Your task to perform on an android device: Open Google Chrome and open the bookmarks view Image 0: 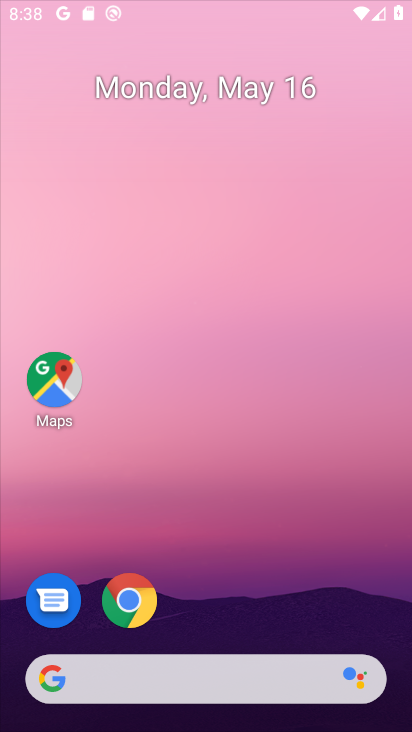
Step 0: click (124, 79)
Your task to perform on an android device: Open Google Chrome and open the bookmarks view Image 1: 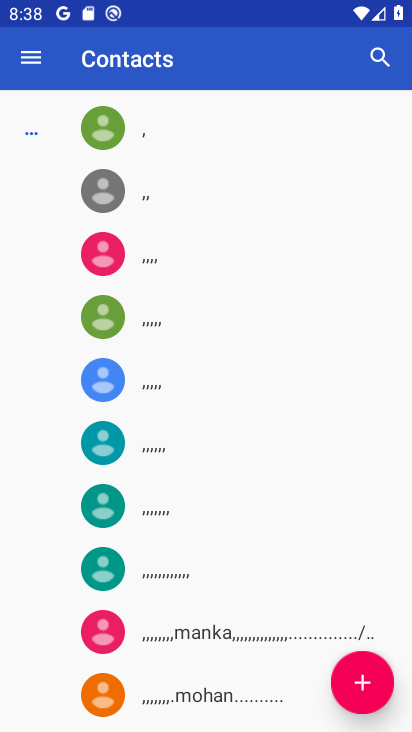
Step 1: press back button
Your task to perform on an android device: Open Google Chrome and open the bookmarks view Image 2: 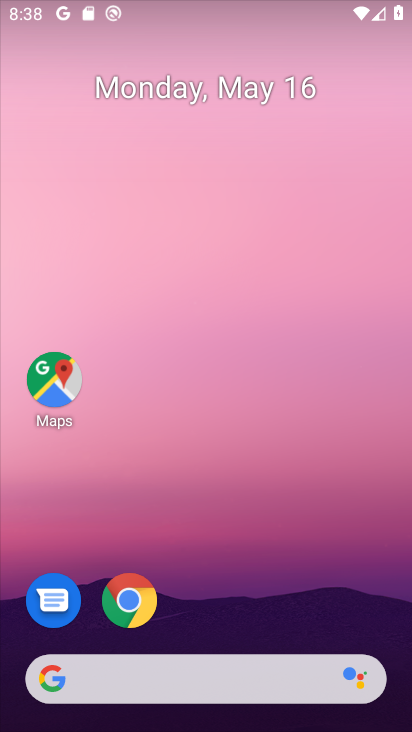
Step 2: drag from (284, 643) to (147, 150)
Your task to perform on an android device: Open Google Chrome and open the bookmarks view Image 3: 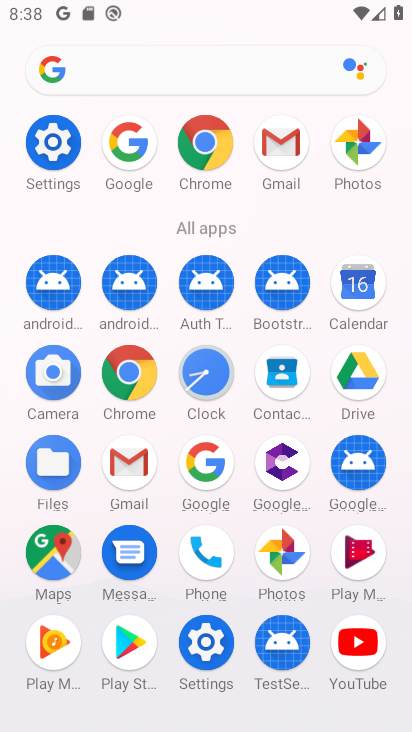
Step 3: click (211, 148)
Your task to perform on an android device: Open Google Chrome and open the bookmarks view Image 4: 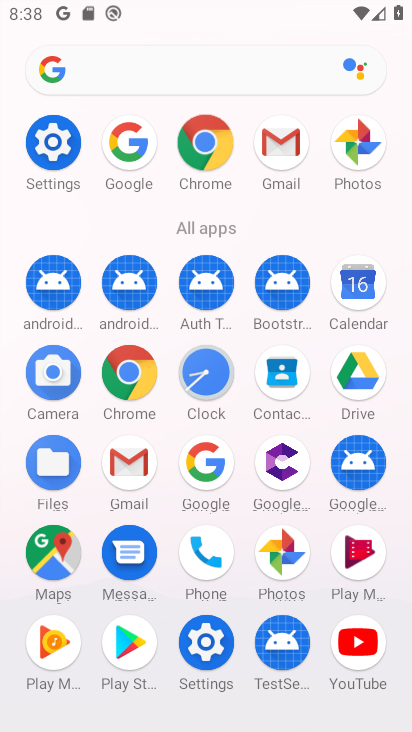
Step 4: click (211, 148)
Your task to perform on an android device: Open Google Chrome and open the bookmarks view Image 5: 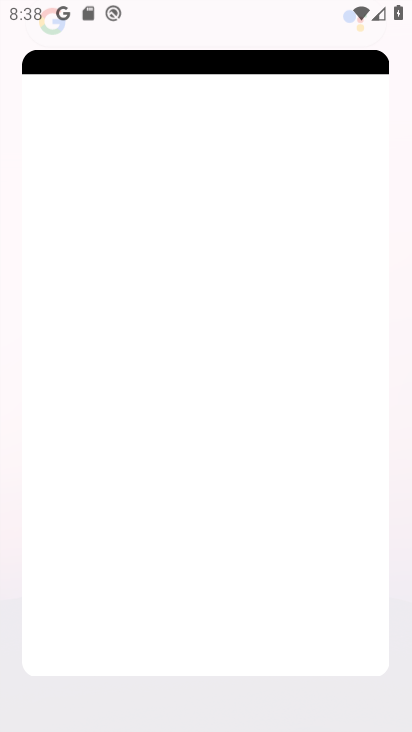
Step 5: click (211, 148)
Your task to perform on an android device: Open Google Chrome and open the bookmarks view Image 6: 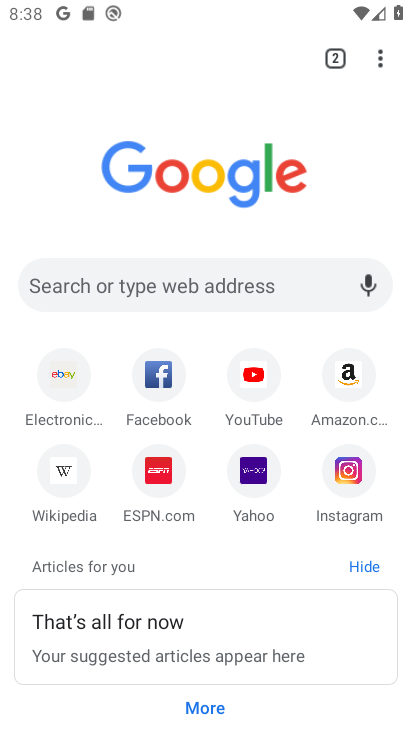
Step 6: drag from (378, 59) to (172, 219)
Your task to perform on an android device: Open Google Chrome and open the bookmarks view Image 7: 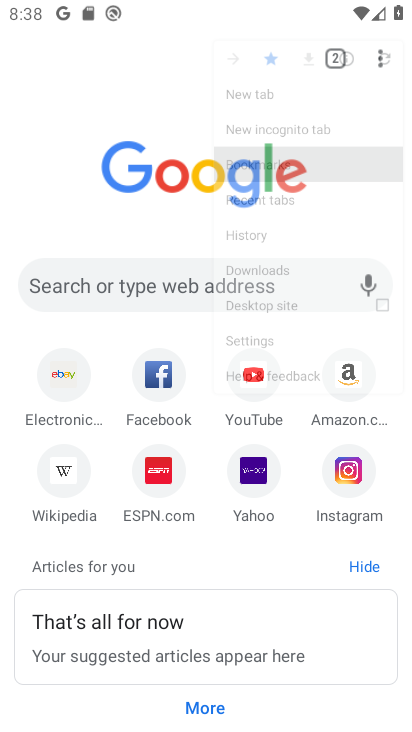
Step 7: click (181, 210)
Your task to perform on an android device: Open Google Chrome and open the bookmarks view Image 8: 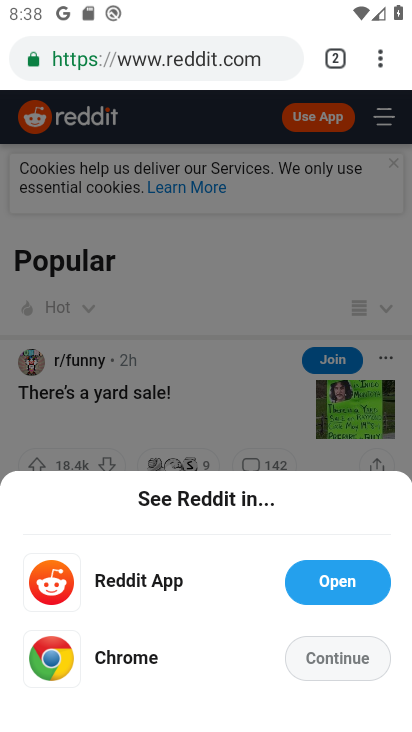
Step 8: drag from (374, 55) to (179, 225)
Your task to perform on an android device: Open Google Chrome and open the bookmarks view Image 9: 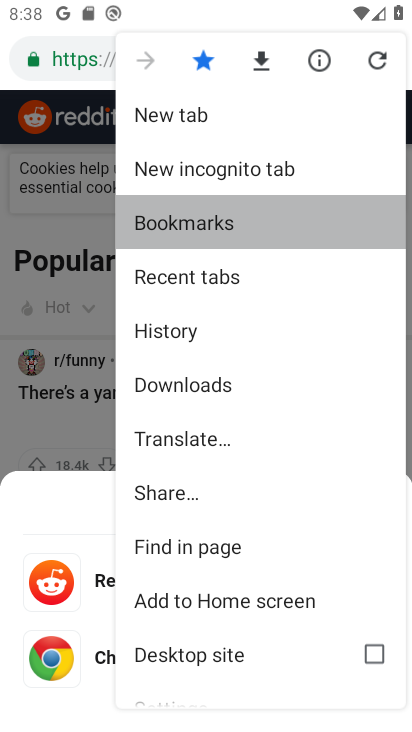
Step 9: click (179, 225)
Your task to perform on an android device: Open Google Chrome and open the bookmarks view Image 10: 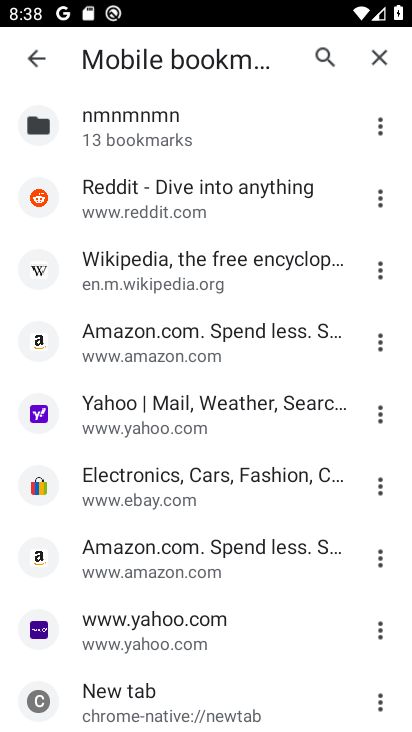
Step 10: task complete